Your task to perform on an android device: set an alarm Image 0: 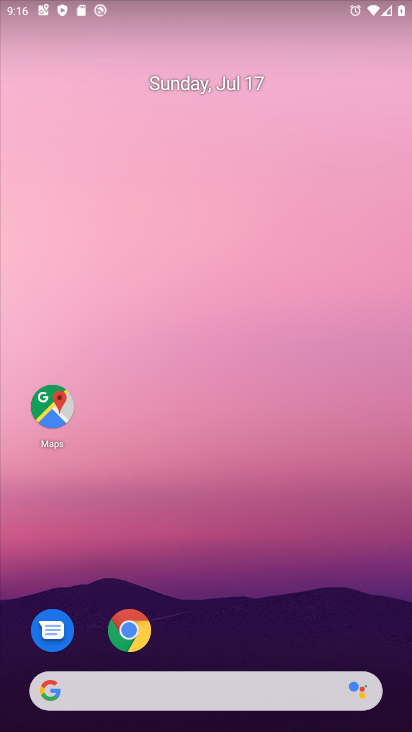
Step 0: drag from (327, 622) to (354, 162)
Your task to perform on an android device: set an alarm Image 1: 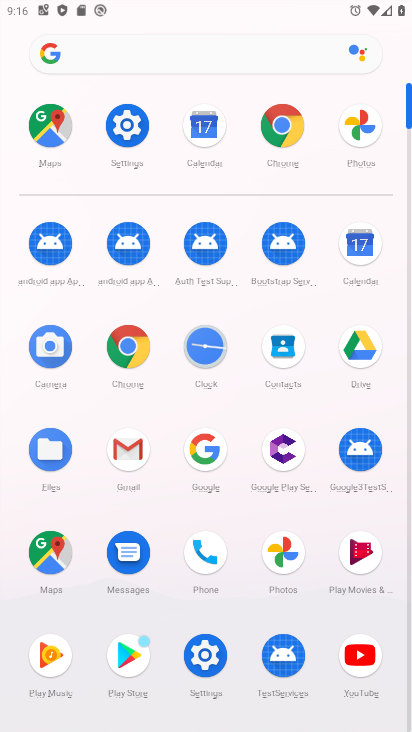
Step 1: click (208, 344)
Your task to perform on an android device: set an alarm Image 2: 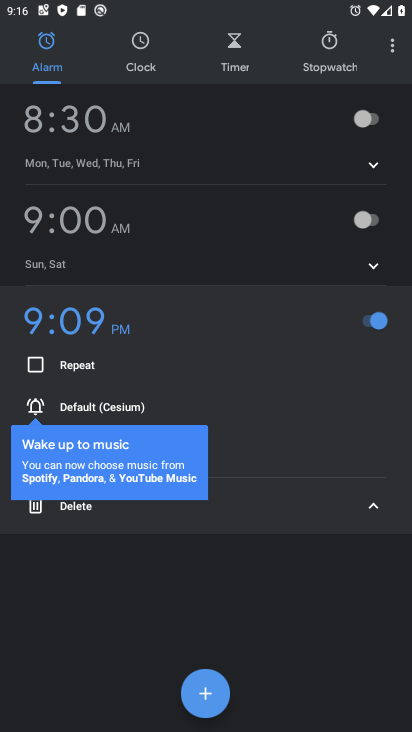
Step 2: click (207, 699)
Your task to perform on an android device: set an alarm Image 3: 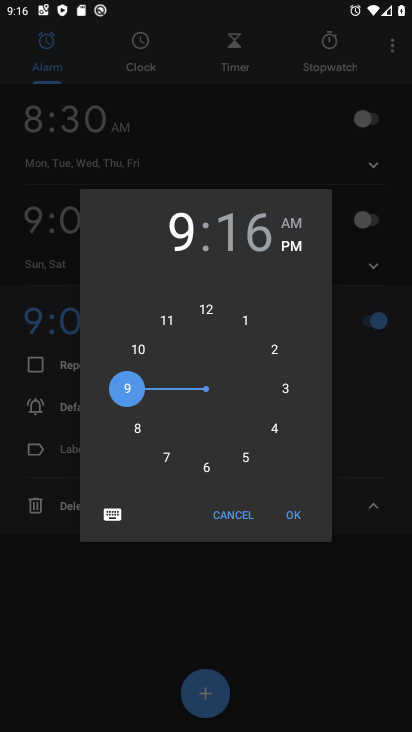
Step 3: click (208, 474)
Your task to perform on an android device: set an alarm Image 4: 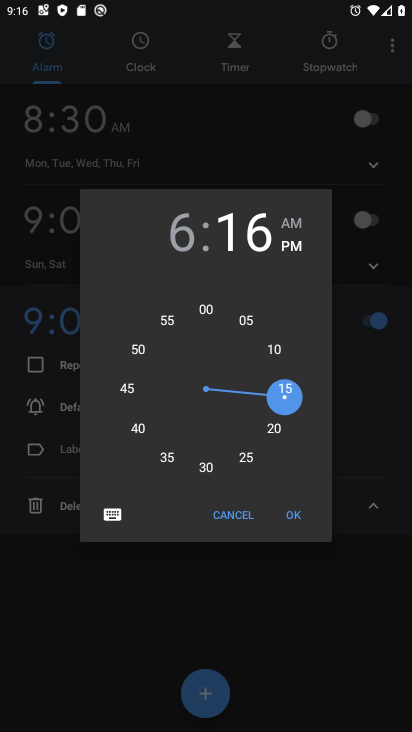
Step 4: click (295, 513)
Your task to perform on an android device: set an alarm Image 5: 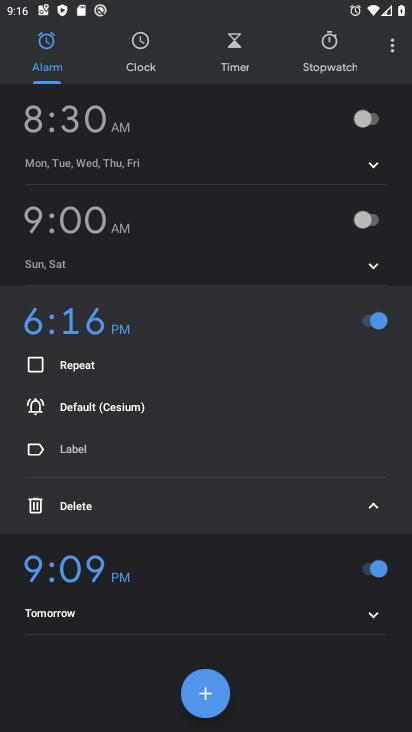
Step 5: task complete